Your task to perform on an android device: Open CNN.com Image 0: 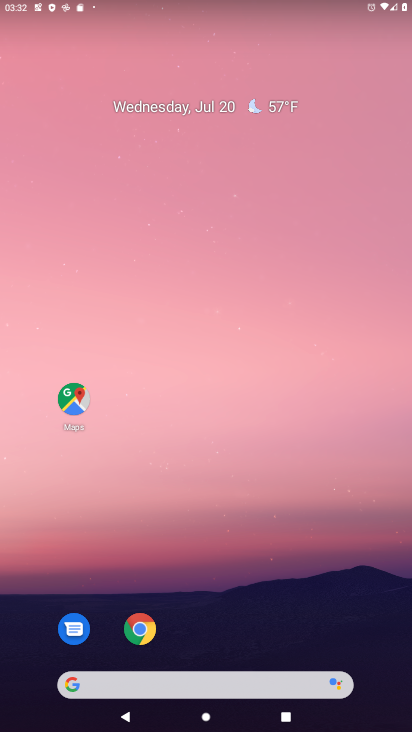
Step 0: click (141, 632)
Your task to perform on an android device: Open CNN.com Image 1: 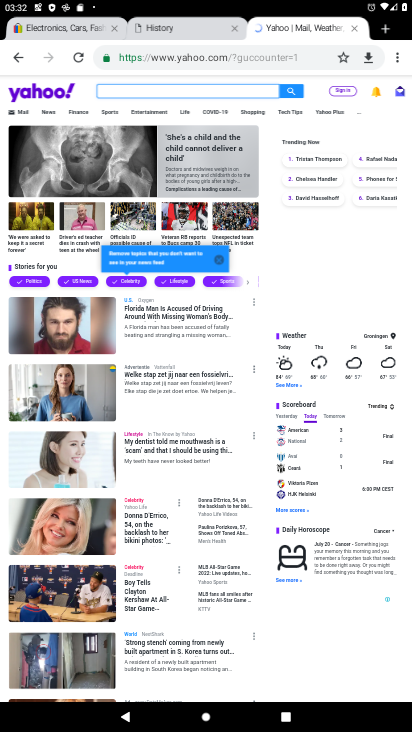
Step 1: click (304, 58)
Your task to perform on an android device: Open CNN.com Image 2: 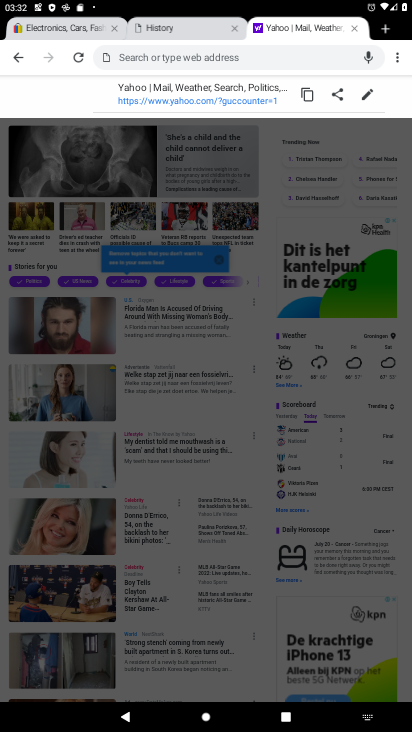
Step 2: type "CNN.com"
Your task to perform on an android device: Open CNN.com Image 3: 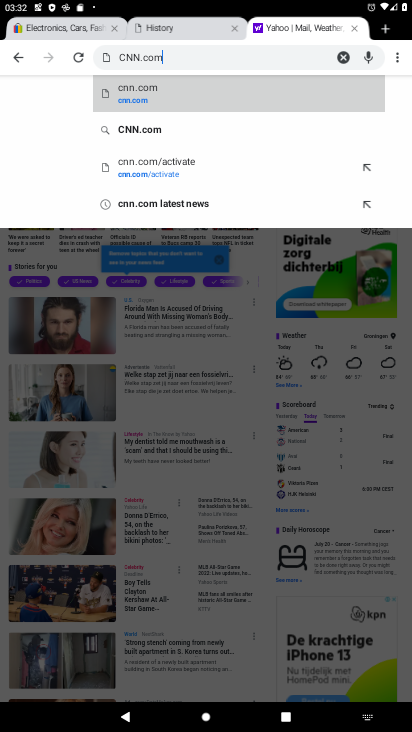
Step 3: click (145, 91)
Your task to perform on an android device: Open CNN.com Image 4: 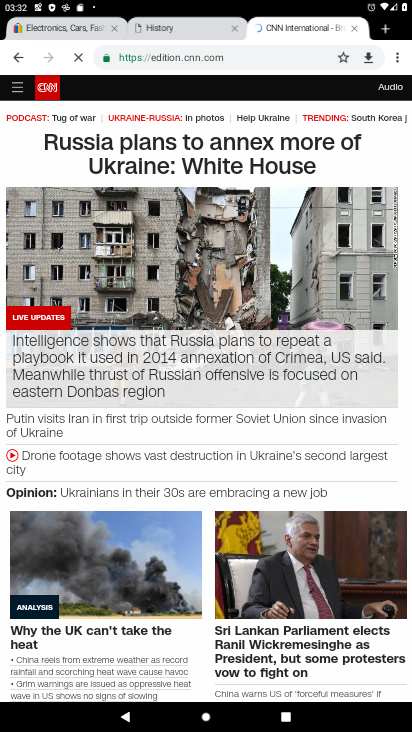
Step 4: task complete